Your task to perform on an android device: turn on airplane mode Image 0: 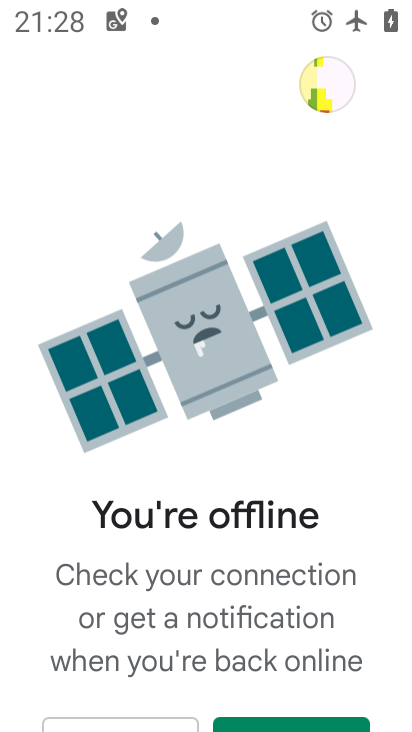
Step 0: press back button
Your task to perform on an android device: turn on airplane mode Image 1: 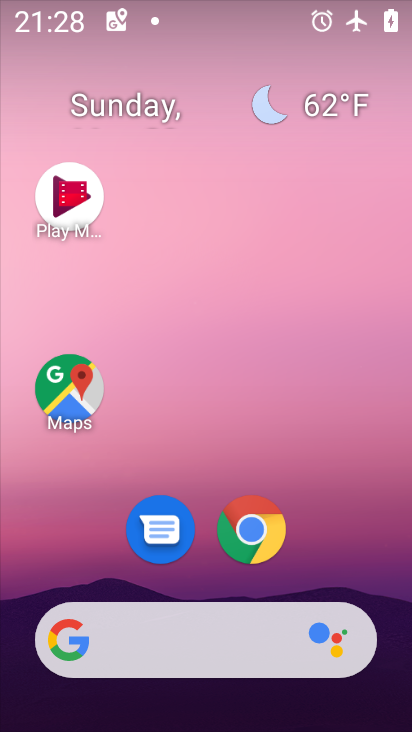
Step 1: drag from (256, 682) to (179, 212)
Your task to perform on an android device: turn on airplane mode Image 2: 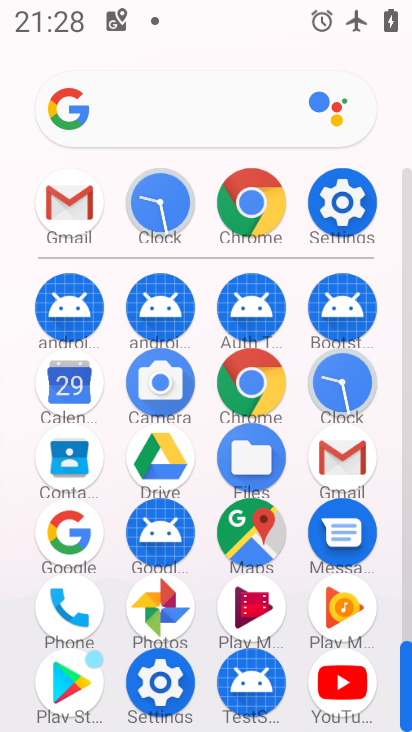
Step 2: click (321, 201)
Your task to perform on an android device: turn on airplane mode Image 3: 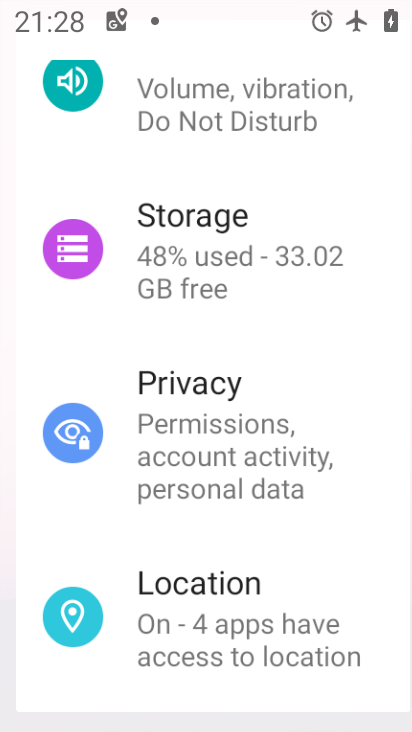
Step 3: click (346, 207)
Your task to perform on an android device: turn on airplane mode Image 4: 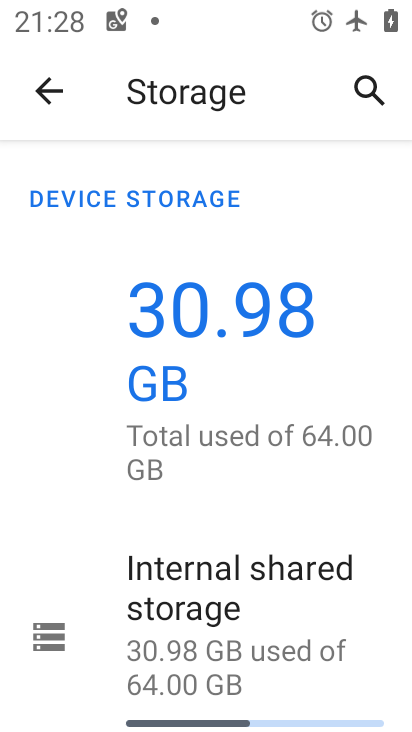
Step 4: click (35, 92)
Your task to perform on an android device: turn on airplane mode Image 5: 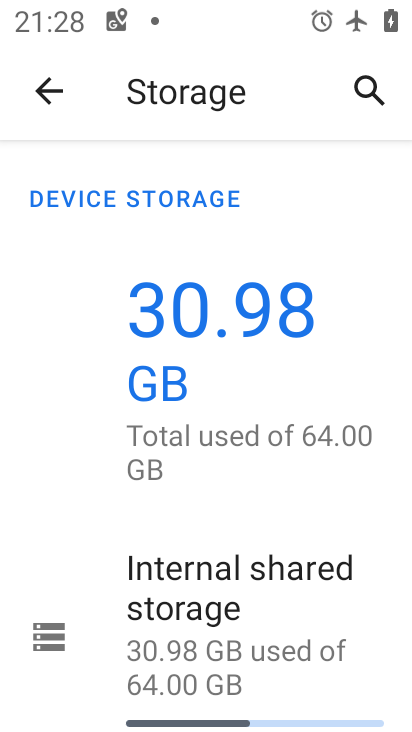
Step 5: click (35, 81)
Your task to perform on an android device: turn on airplane mode Image 6: 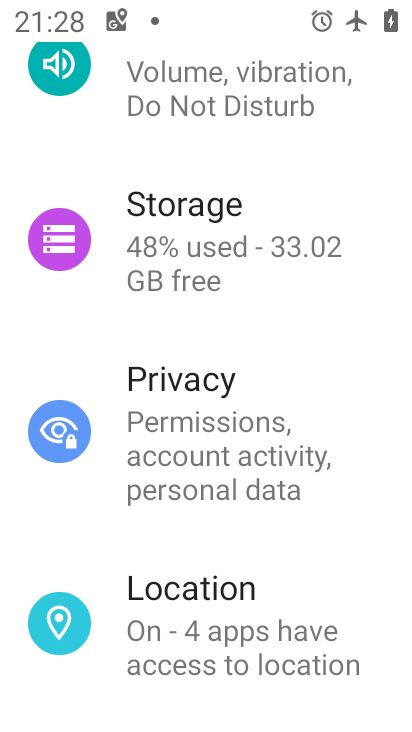
Step 6: drag from (195, 261) to (209, 511)
Your task to perform on an android device: turn on airplane mode Image 7: 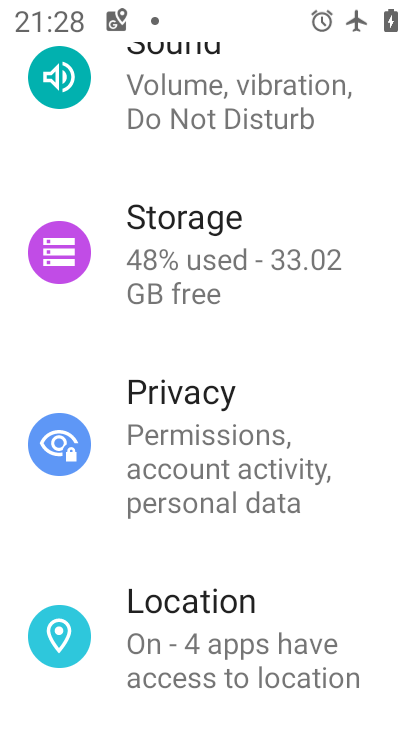
Step 7: drag from (213, 480) to (279, 646)
Your task to perform on an android device: turn on airplane mode Image 8: 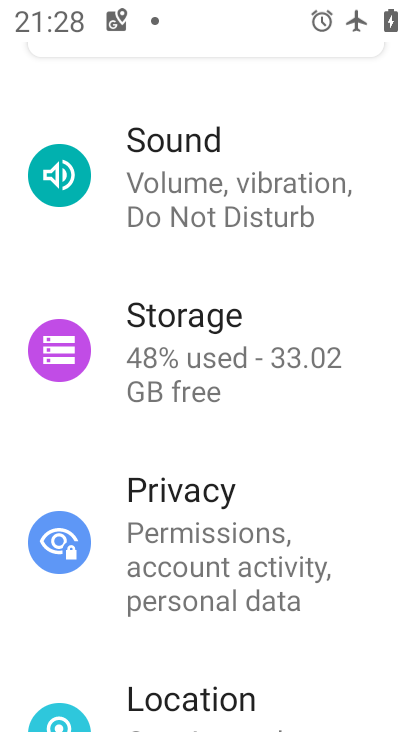
Step 8: drag from (221, 531) to (237, 701)
Your task to perform on an android device: turn on airplane mode Image 9: 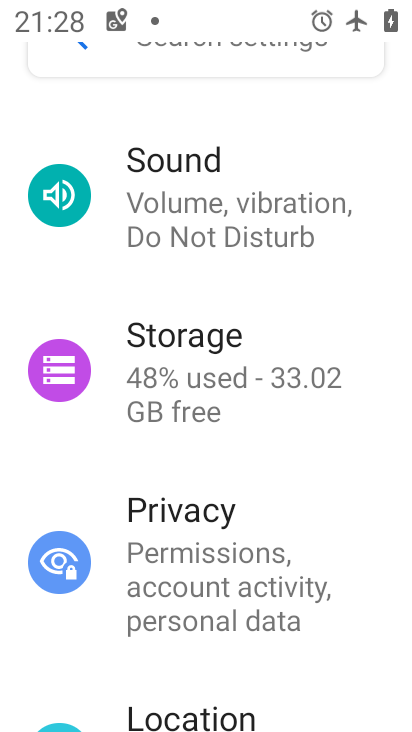
Step 9: drag from (253, 414) to (306, 719)
Your task to perform on an android device: turn on airplane mode Image 10: 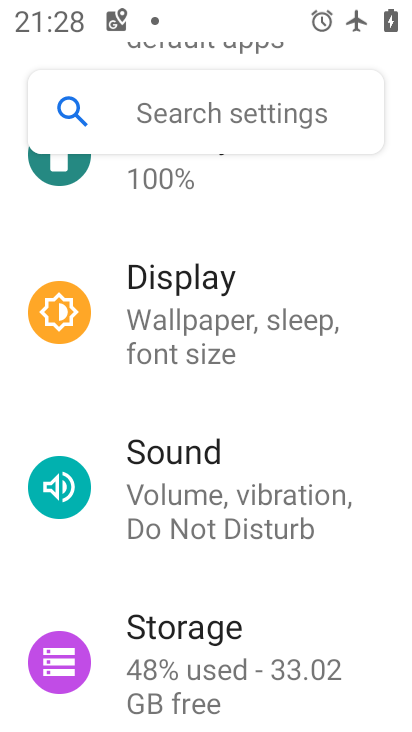
Step 10: drag from (261, 107) to (247, 644)
Your task to perform on an android device: turn on airplane mode Image 11: 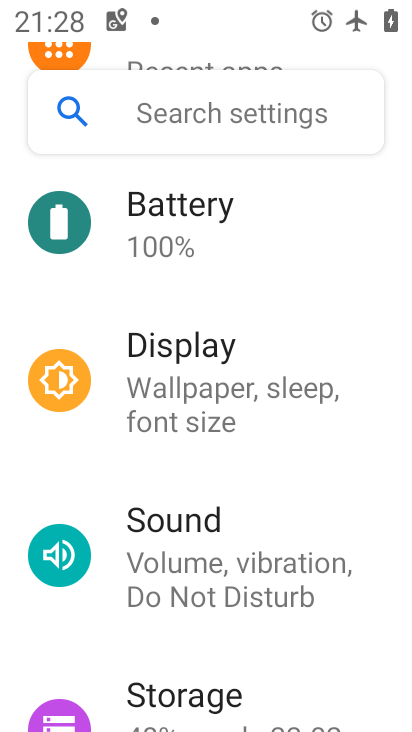
Step 11: drag from (219, 167) to (268, 667)
Your task to perform on an android device: turn on airplane mode Image 12: 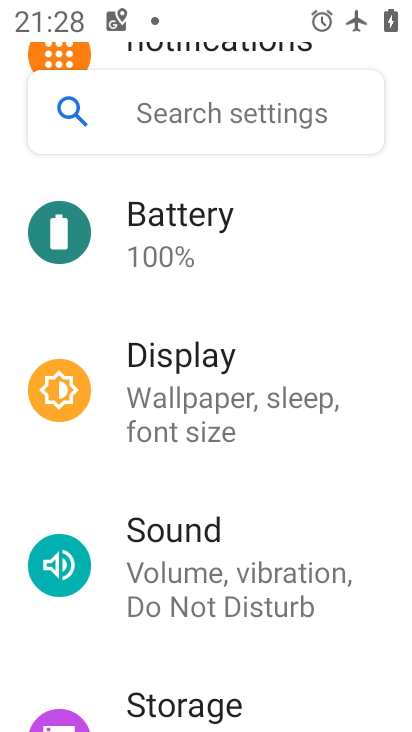
Step 12: drag from (209, 321) to (215, 664)
Your task to perform on an android device: turn on airplane mode Image 13: 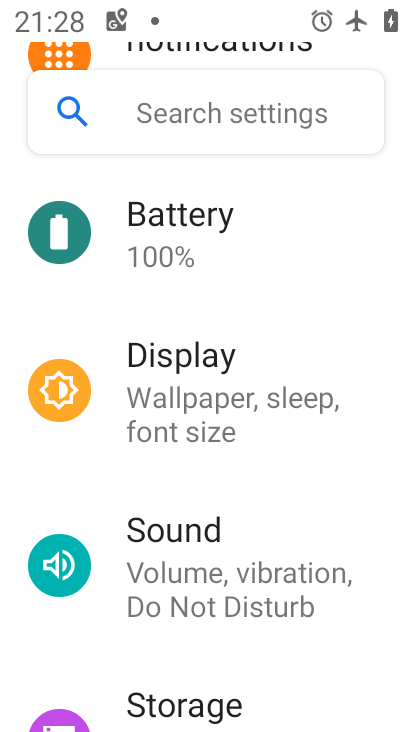
Step 13: drag from (276, 152) to (278, 680)
Your task to perform on an android device: turn on airplane mode Image 14: 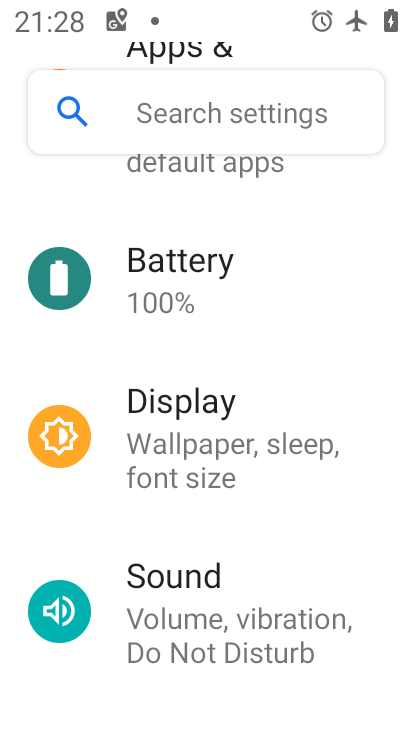
Step 14: drag from (234, 258) to (249, 628)
Your task to perform on an android device: turn on airplane mode Image 15: 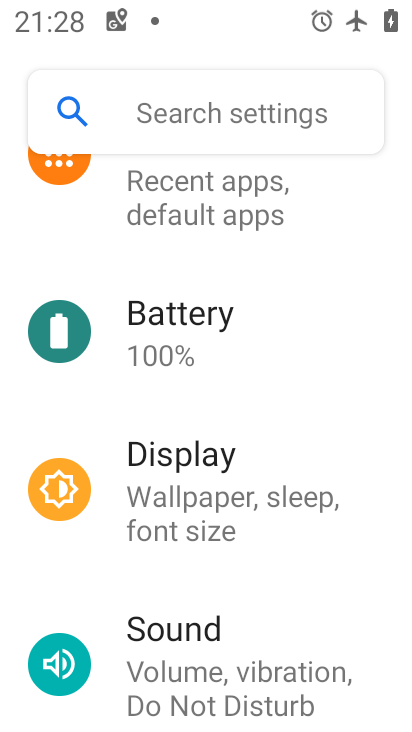
Step 15: drag from (293, 150) to (298, 630)
Your task to perform on an android device: turn on airplane mode Image 16: 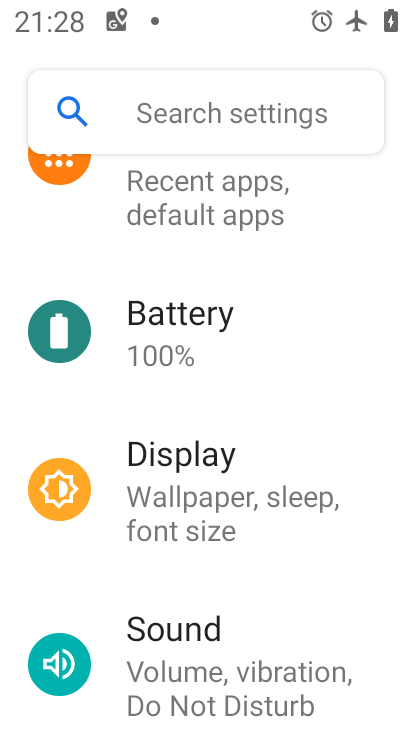
Step 16: drag from (271, 212) to (248, 658)
Your task to perform on an android device: turn on airplane mode Image 17: 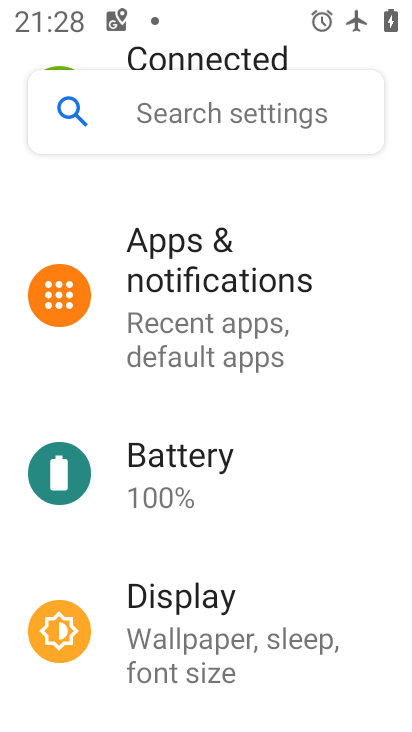
Step 17: drag from (237, 280) to (267, 689)
Your task to perform on an android device: turn on airplane mode Image 18: 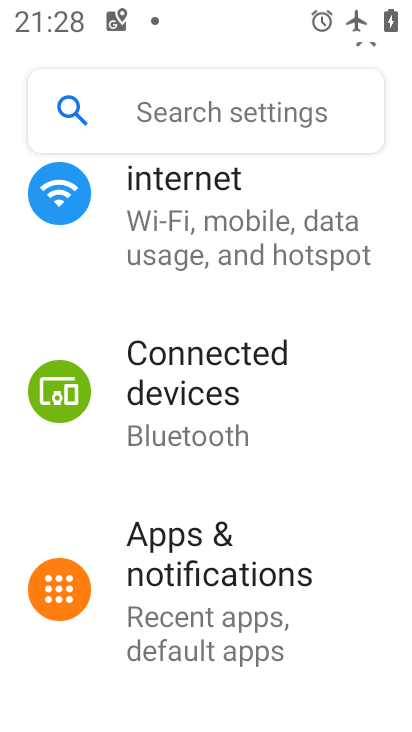
Step 18: click (201, 238)
Your task to perform on an android device: turn on airplane mode Image 19: 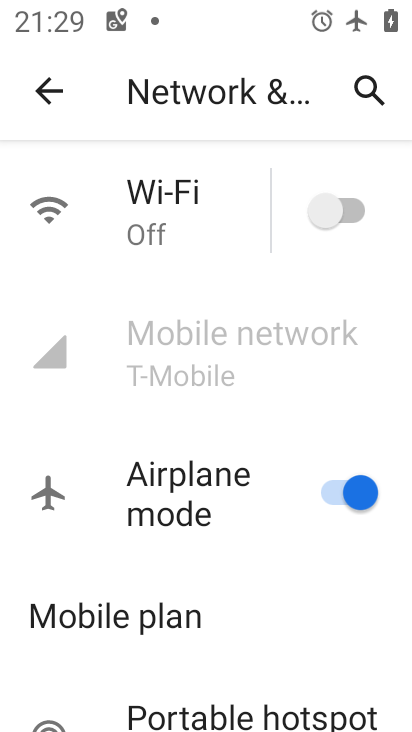
Step 19: task complete